Your task to perform on an android device: turn on javascript in the chrome app Image 0: 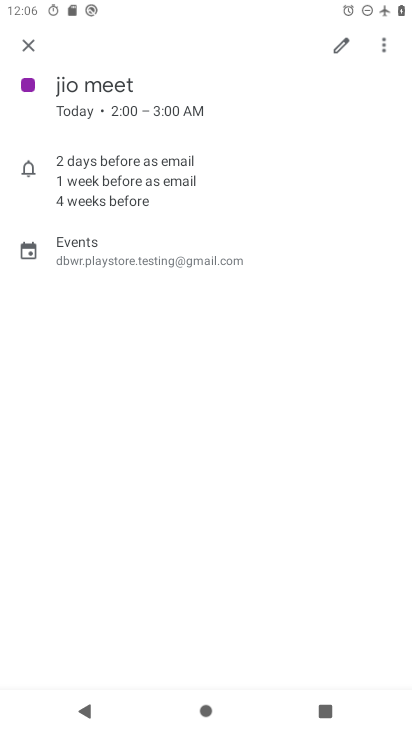
Step 0: press back button
Your task to perform on an android device: turn on javascript in the chrome app Image 1: 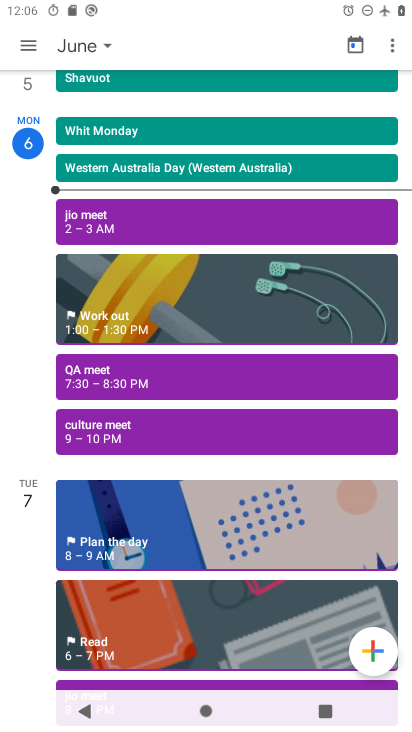
Step 1: press home button
Your task to perform on an android device: turn on javascript in the chrome app Image 2: 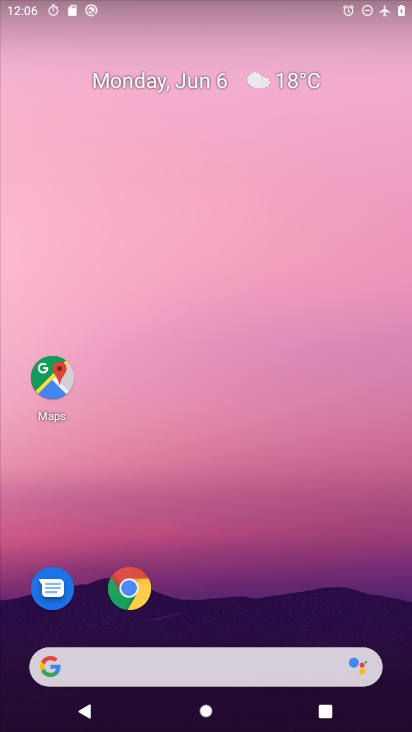
Step 2: drag from (352, 450) to (352, 95)
Your task to perform on an android device: turn on javascript in the chrome app Image 3: 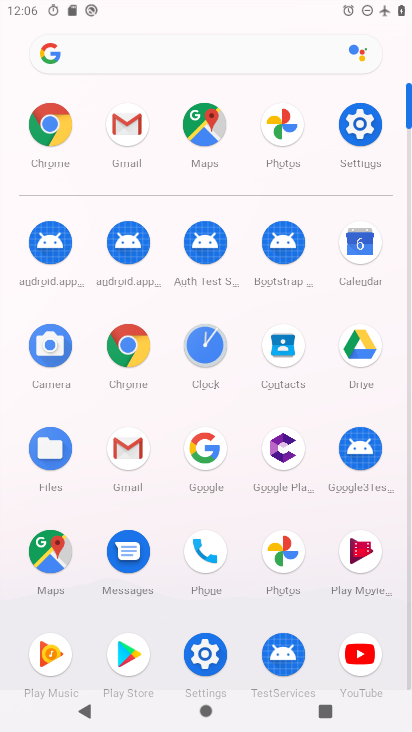
Step 3: click (133, 356)
Your task to perform on an android device: turn on javascript in the chrome app Image 4: 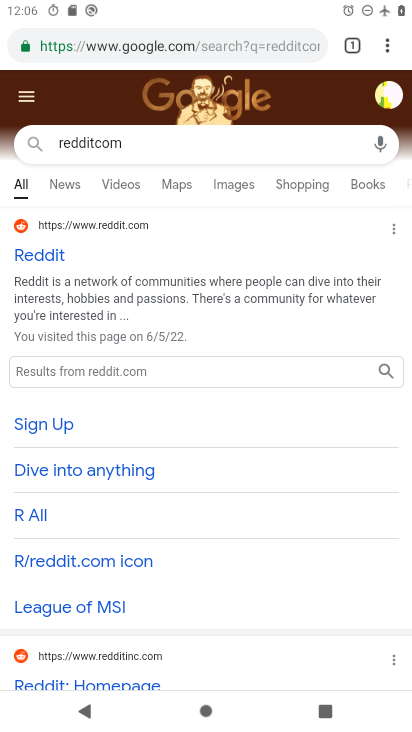
Step 4: click (387, 54)
Your task to perform on an android device: turn on javascript in the chrome app Image 5: 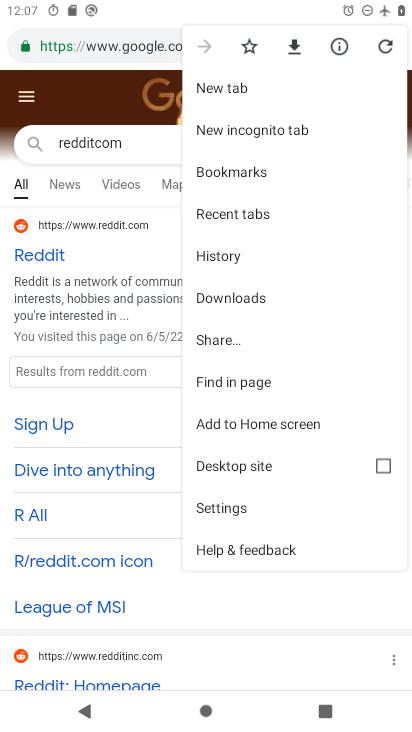
Step 5: click (246, 512)
Your task to perform on an android device: turn on javascript in the chrome app Image 6: 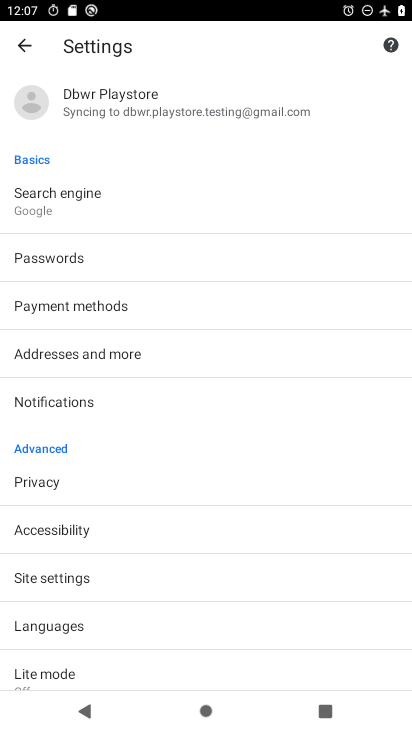
Step 6: drag from (326, 497) to (329, 429)
Your task to perform on an android device: turn on javascript in the chrome app Image 7: 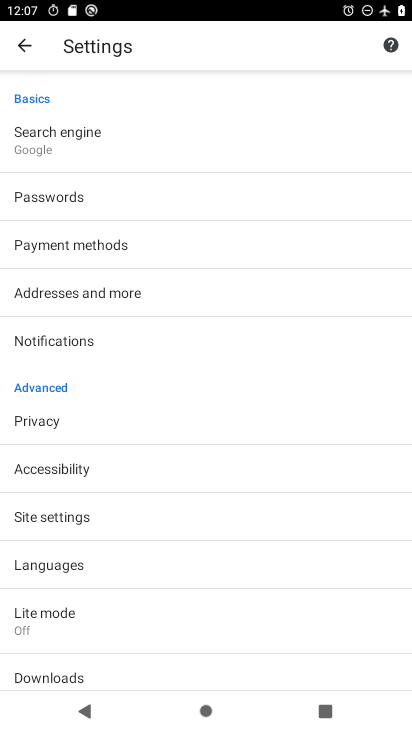
Step 7: drag from (311, 517) to (317, 449)
Your task to perform on an android device: turn on javascript in the chrome app Image 8: 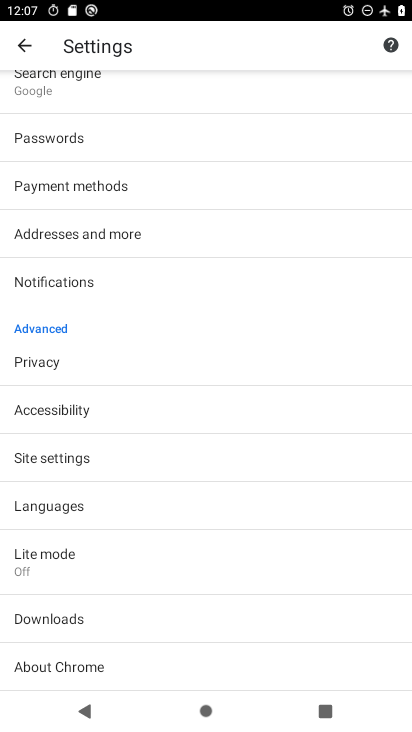
Step 8: drag from (283, 525) to (275, 415)
Your task to perform on an android device: turn on javascript in the chrome app Image 9: 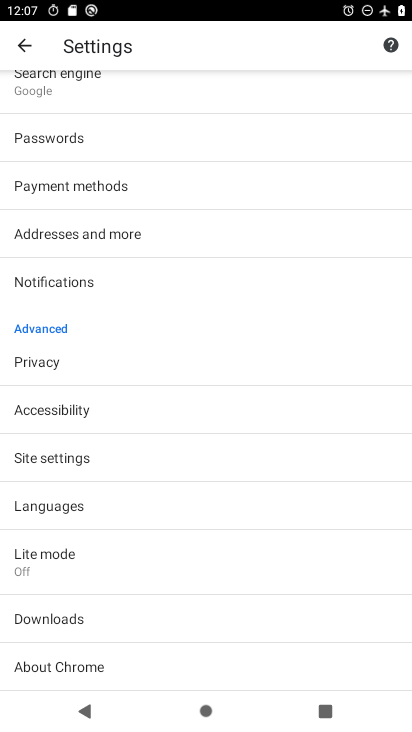
Step 9: click (222, 452)
Your task to perform on an android device: turn on javascript in the chrome app Image 10: 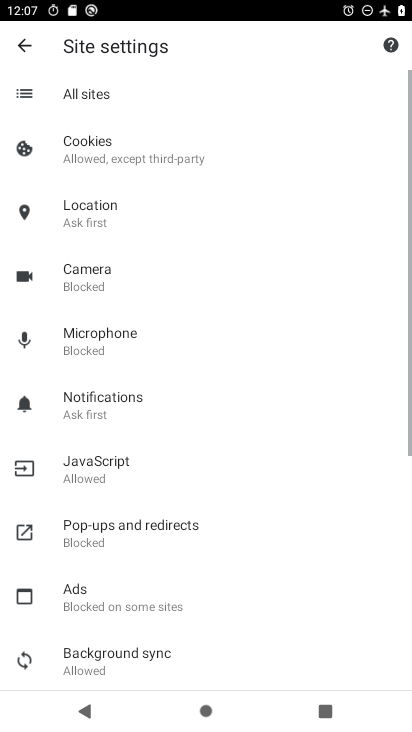
Step 10: drag from (264, 437) to (272, 380)
Your task to perform on an android device: turn on javascript in the chrome app Image 11: 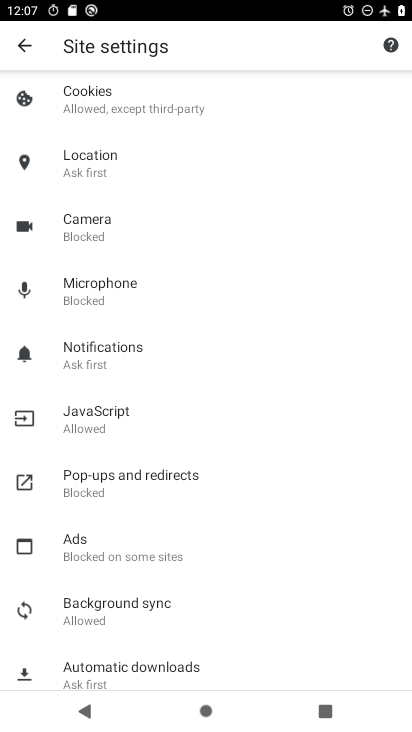
Step 11: drag from (249, 446) to (257, 379)
Your task to perform on an android device: turn on javascript in the chrome app Image 12: 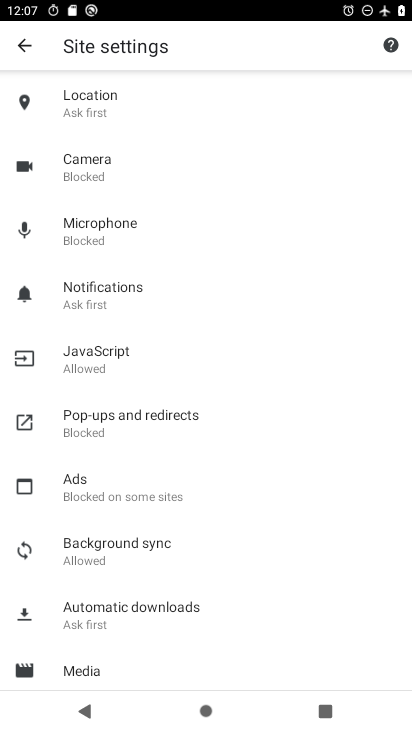
Step 12: drag from (276, 452) to (280, 382)
Your task to perform on an android device: turn on javascript in the chrome app Image 13: 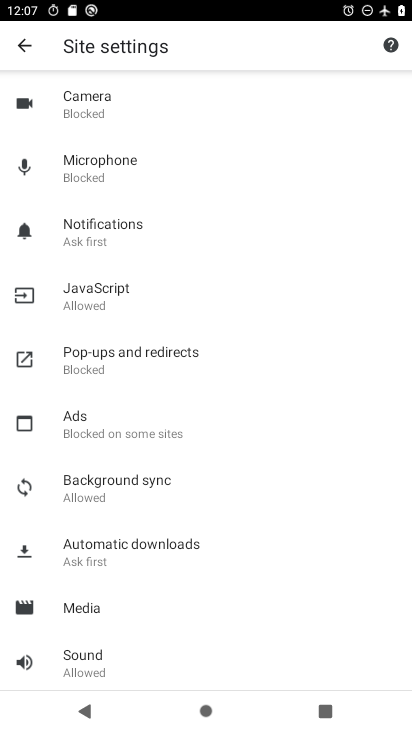
Step 13: drag from (291, 456) to (292, 395)
Your task to perform on an android device: turn on javascript in the chrome app Image 14: 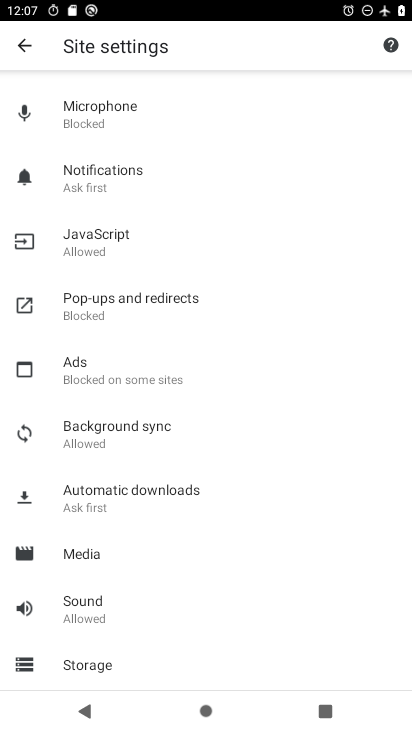
Step 14: drag from (293, 443) to (295, 375)
Your task to perform on an android device: turn on javascript in the chrome app Image 15: 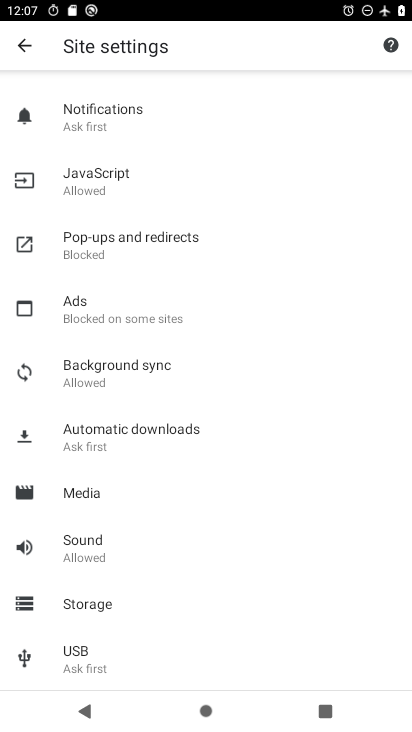
Step 15: drag from (309, 434) to (318, 343)
Your task to perform on an android device: turn on javascript in the chrome app Image 16: 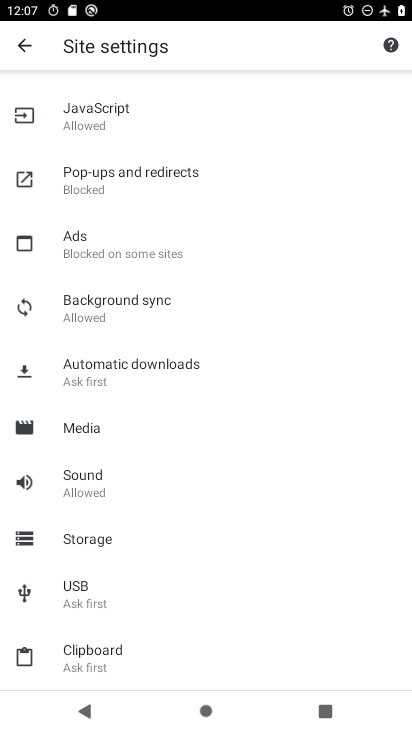
Step 16: drag from (321, 440) to (330, 295)
Your task to perform on an android device: turn on javascript in the chrome app Image 17: 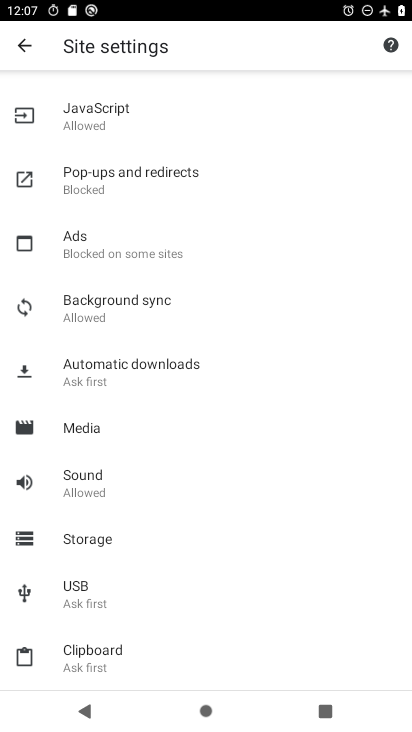
Step 17: drag from (292, 162) to (299, 236)
Your task to perform on an android device: turn on javascript in the chrome app Image 18: 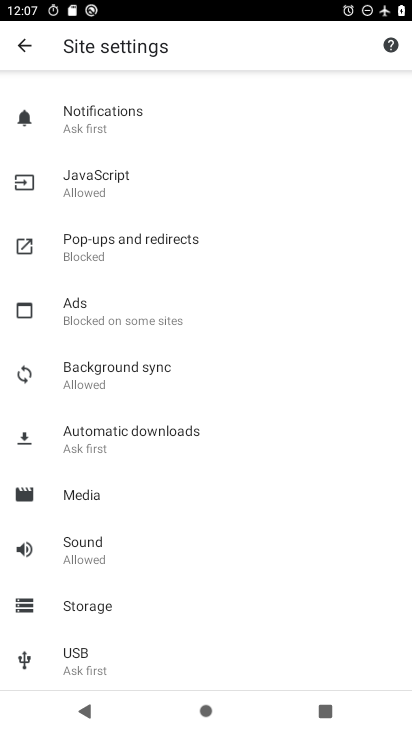
Step 18: click (117, 187)
Your task to perform on an android device: turn on javascript in the chrome app Image 19: 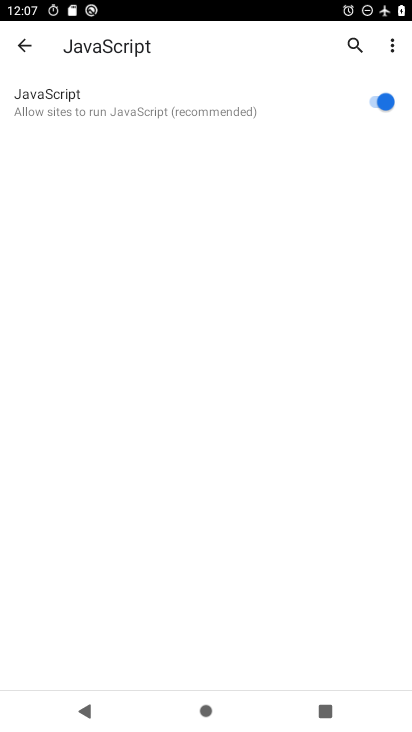
Step 19: task complete